Your task to perform on an android device: delete the emails in spam in the gmail app Image 0: 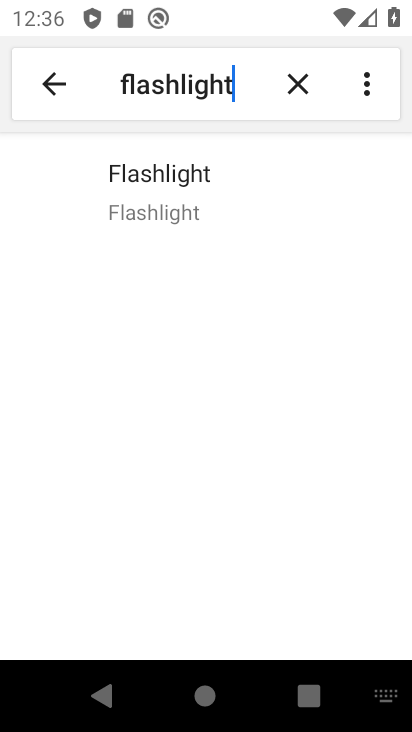
Step 0: press back button
Your task to perform on an android device: delete the emails in spam in the gmail app Image 1: 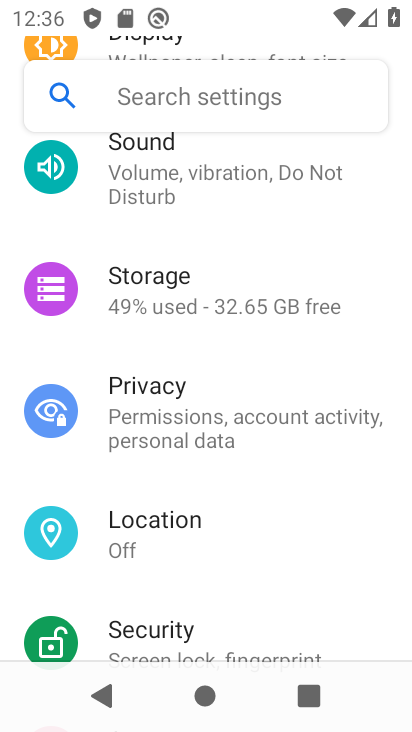
Step 1: press back button
Your task to perform on an android device: delete the emails in spam in the gmail app Image 2: 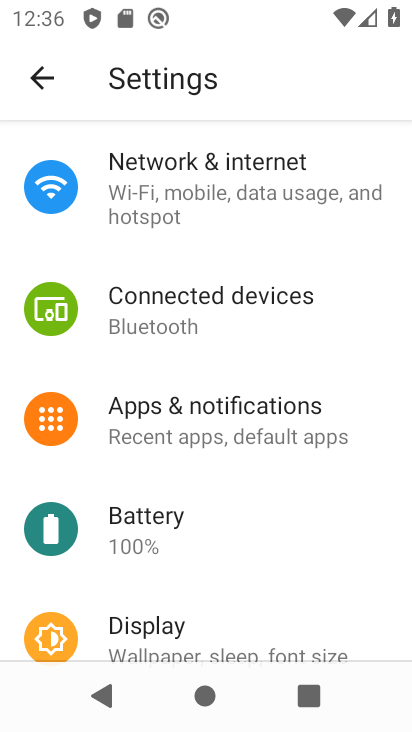
Step 2: press home button
Your task to perform on an android device: delete the emails in spam in the gmail app Image 3: 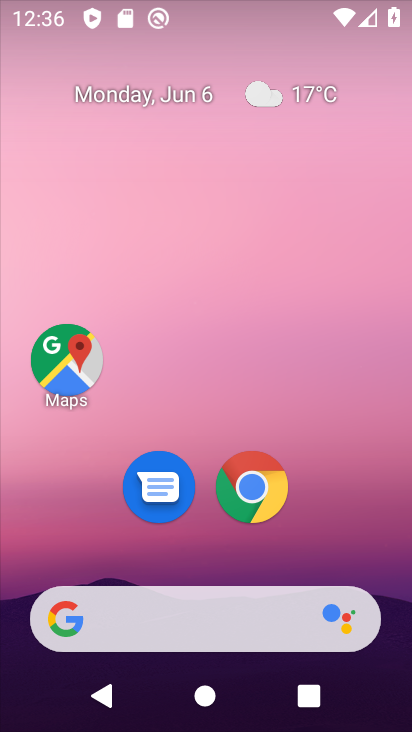
Step 3: drag from (206, 549) to (283, 34)
Your task to perform on an android device: delete the emails in spam in the gmail app Image 4: 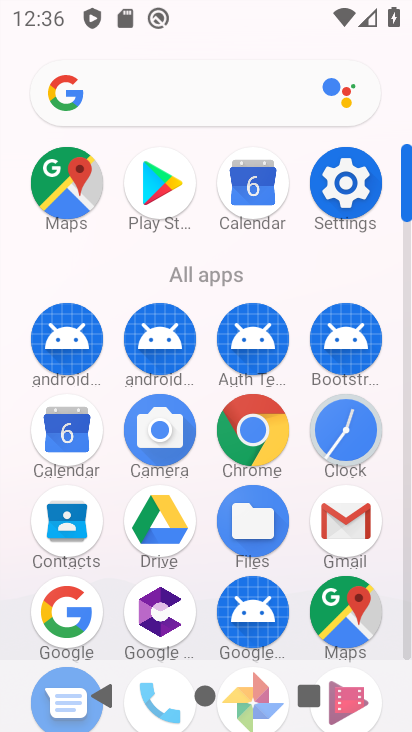
Step 4: click (327, 529)
Your task to perform on an android device: delete the emails in spam in the gmail app Image 5: 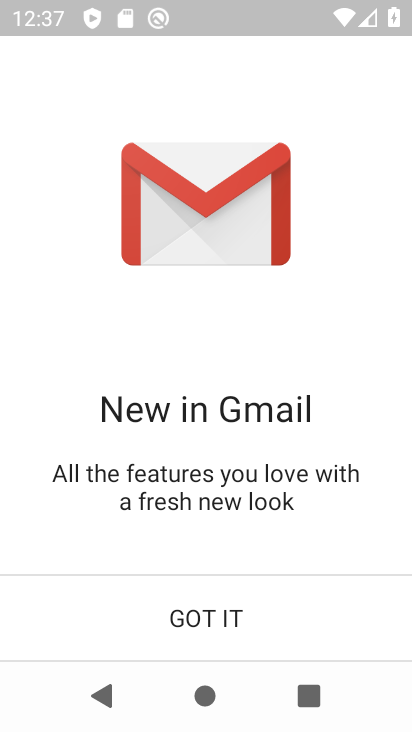
Step 5: click (229, 622)
Your task to perform on an android device: delete the emails in spam in the gmail app Image 6: 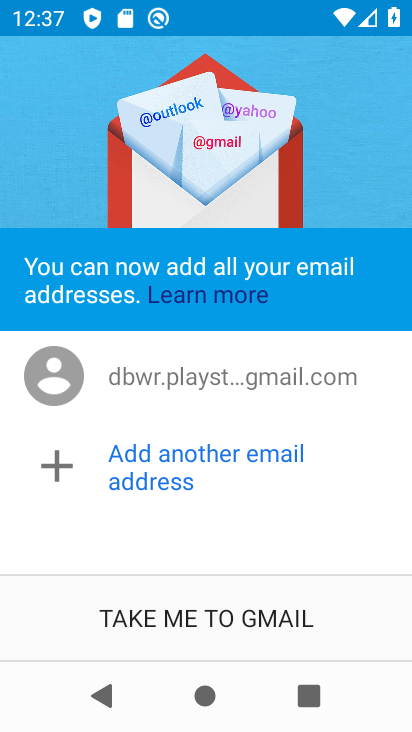
Step 6: click (206, 611)
Your task to perform on an android device: delete the emails in spam in the gmail app Image 7: 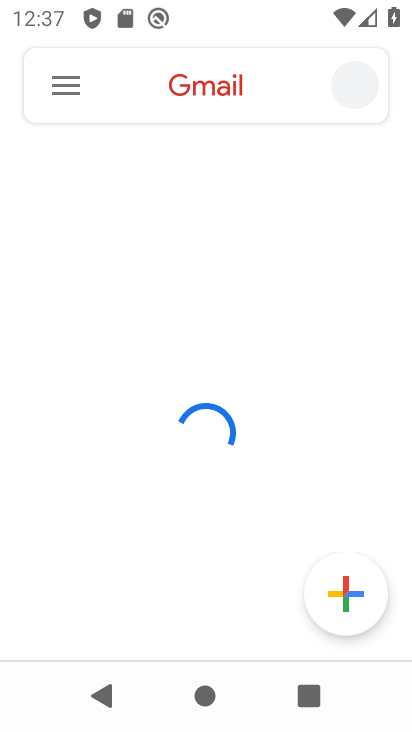
Step 7: click (60, 82)
Your task to perform on an android device: delete the emails in spam in the gmail app Image 8: 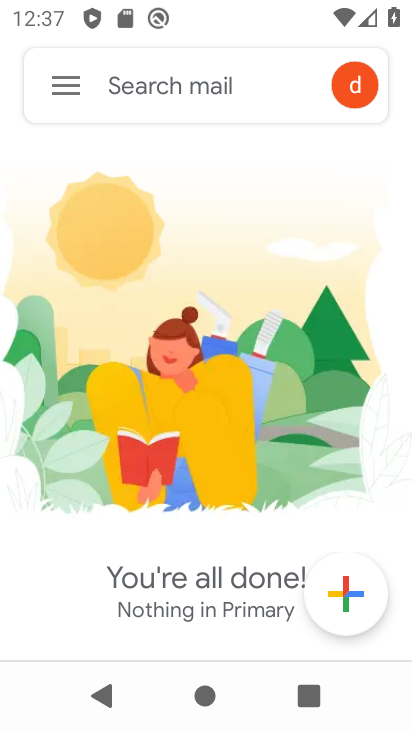
Step 8: click (36, 79)
Your task to perform on an android device: delete the emails in spam in the gmail app Image 9: 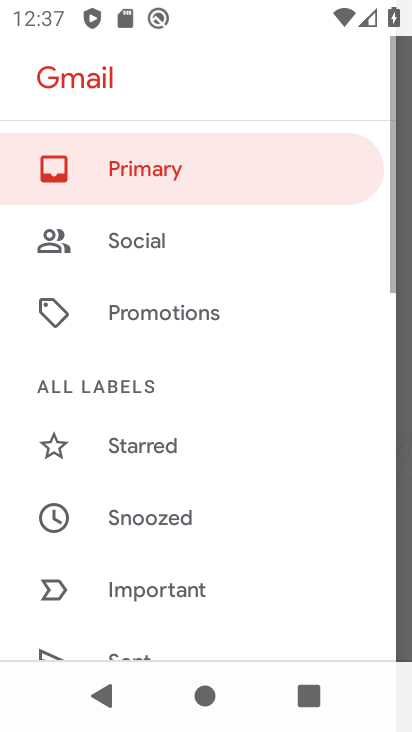
Step 9: drag from (172, 584) to (266, 63)
Your task to perform on an android device: delete the emails in spam in the gmail app Image 10: 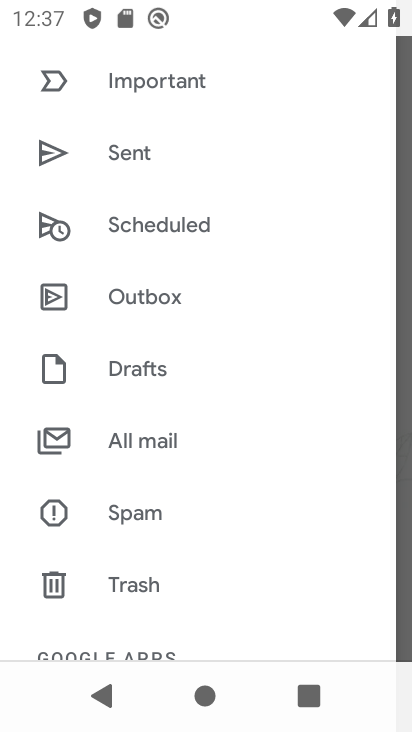
Step 10: click (202, 505)
Your task to perform on an android device: delete the emails in spam in the gmail app Image 11: 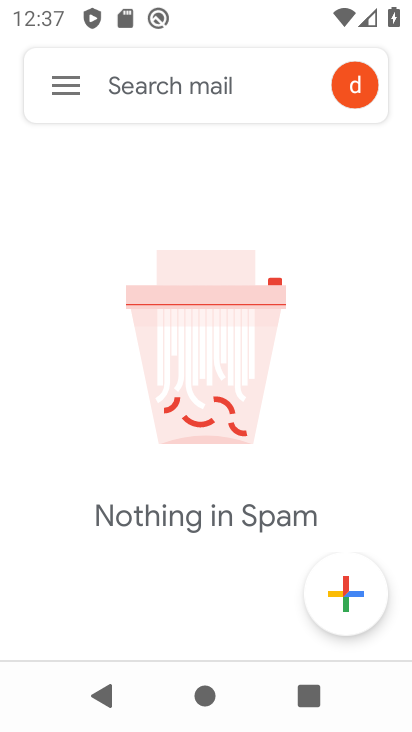
Step 11: task complete